Your task to perform on an android device: change keyboard looks Image 0: 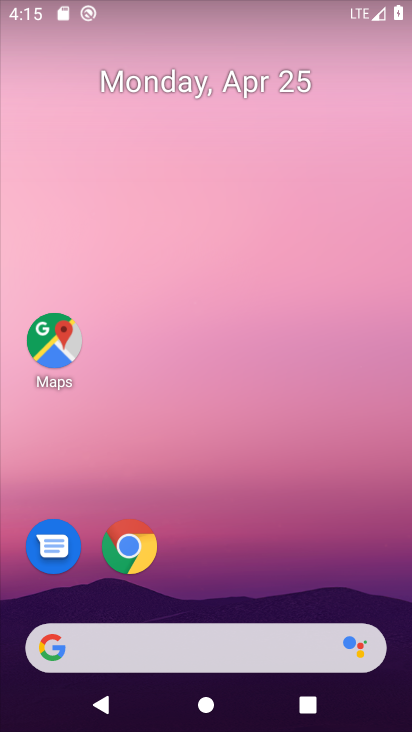
Step 0: drag from (268, 401) to (319, 0)
Your task to perform on an android device: change keyboard looks Image 1: 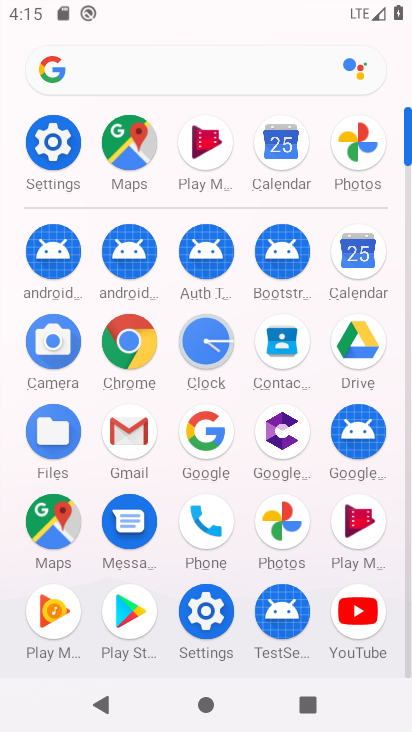
Step 1: click (55, 147)
Your task to perform on an android device: change keyboard looks Image 2: 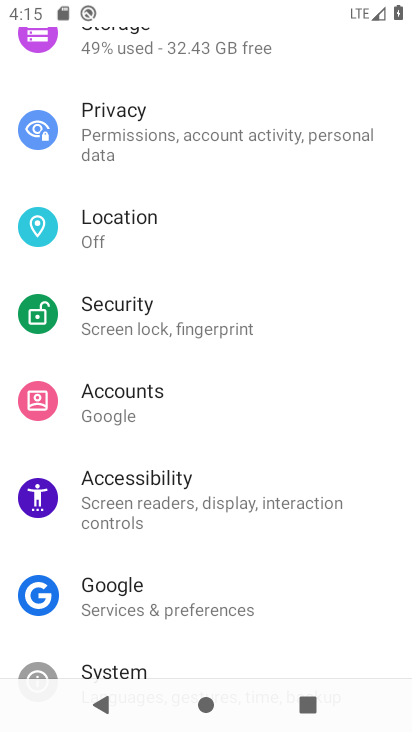
Step 2: drag from (151, 167) to (254, 400)
Your task to perform on an android device: change keyboard looks Image 3: 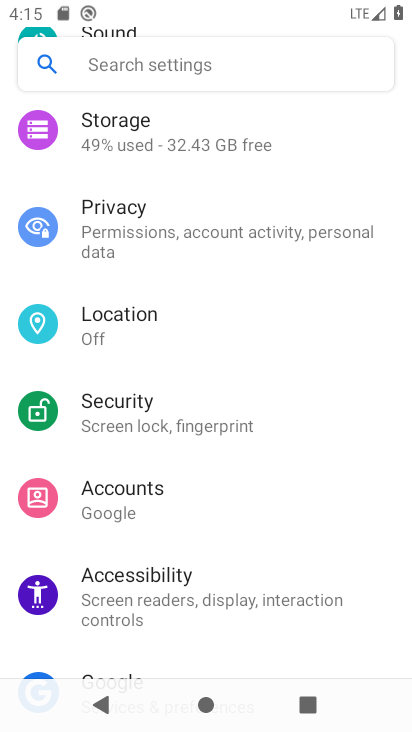
Step 3: drag from (257, 511) to (319, 150)
Your task to perform on an android device: change keyboard looks Image 4: 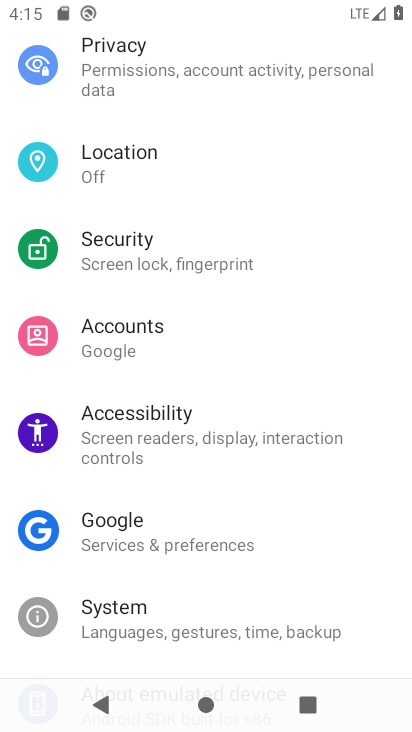
Step 4: click (215, 620)
Your task to perform on an android device: change keyboard looks Image 5: 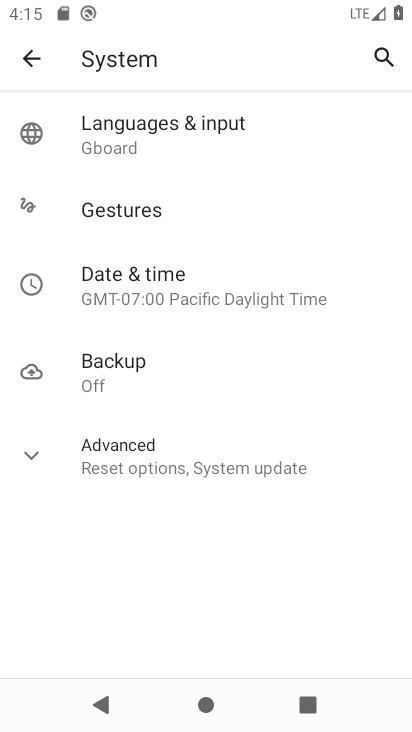
Step 5: click (167, 129)
Your task to perform on an android device: change keyboard looks Image 6: 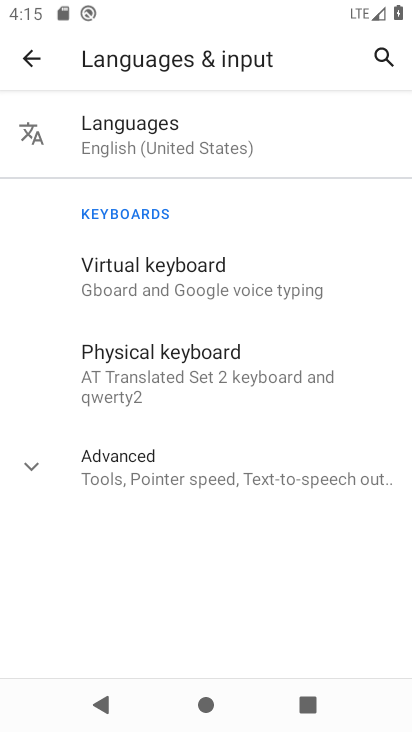
Step 6: click (174, 285)
Your task to perform on an android device: change keyboard looks Image 7: 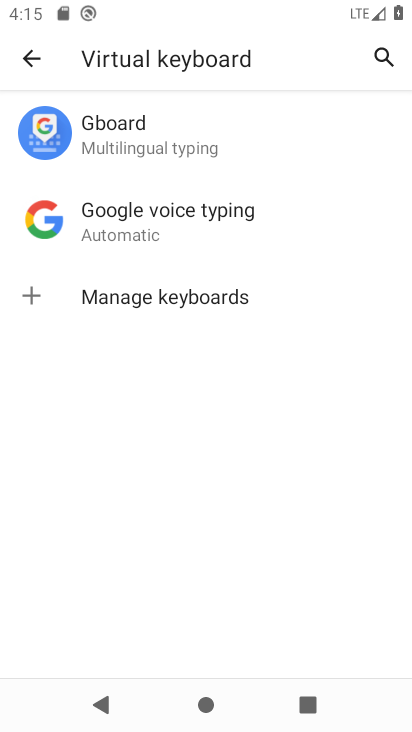
Step 7: click (148, 129)
Your task to perform on an android device: change keyboard looks Image 8: 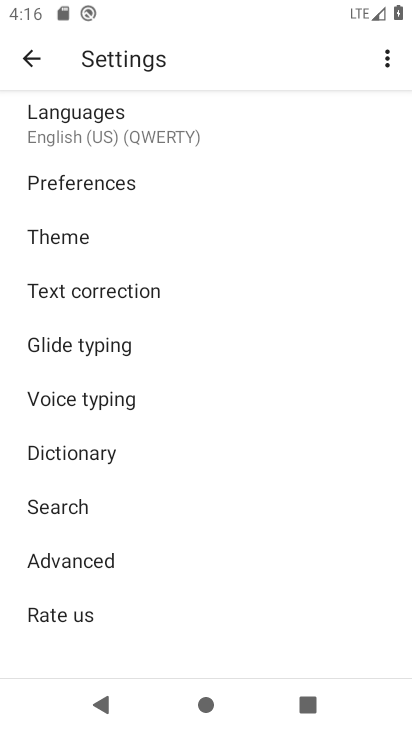
Step 8: click (115, 226)
Your task to perform on an android device: change keyboard looks Image 9: 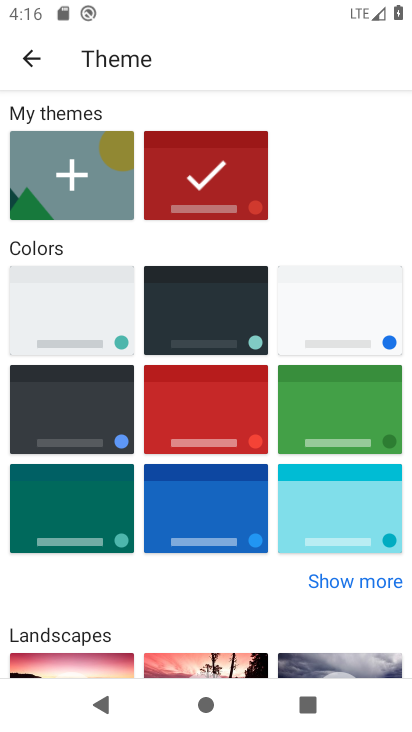
Step 9: click (71, 496)
Your task to perform on an android device: change keyboard looks Image 10: 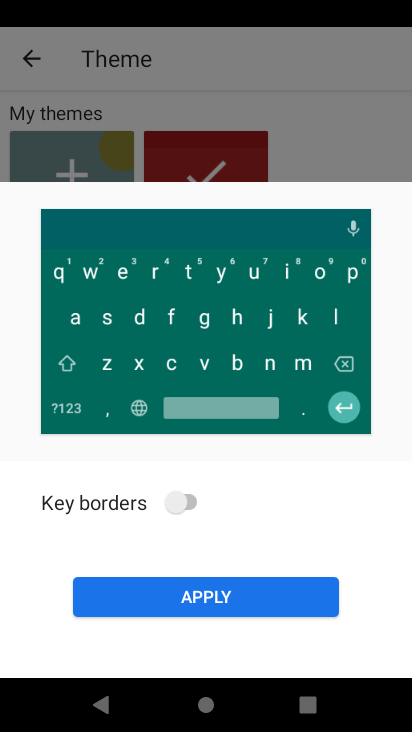
Step 10: click (212, 585)
Your task to perform on an android device: change keyboard looks Image 11: 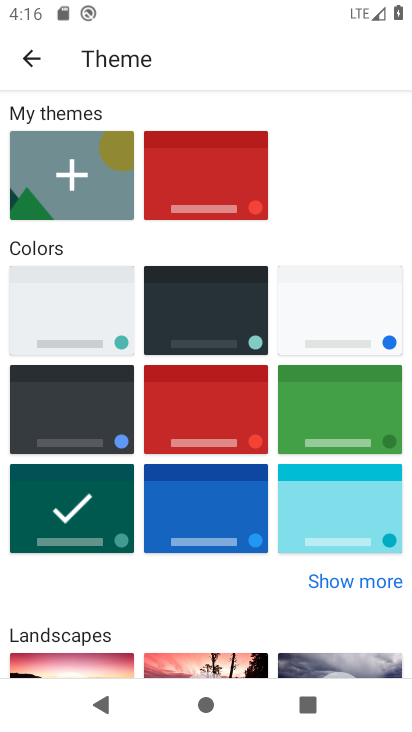
Step 11: task complete